Your task to perform on an android device: Open internet settings Image 0: 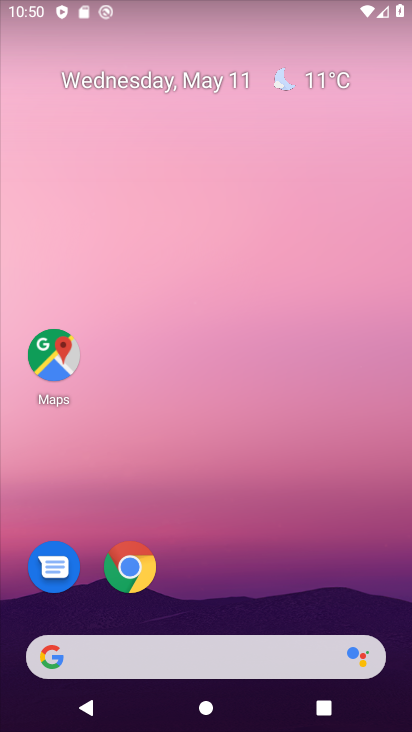
Step 0: drag from (288, 501) to (205, 0)
Your task to perform on an android device: Open internet settings Image 1: 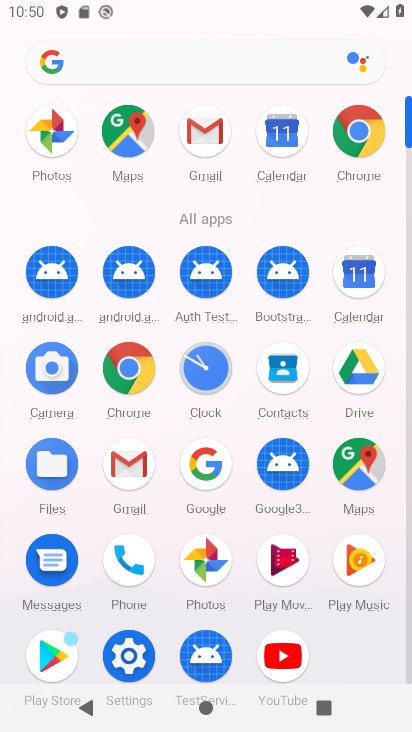
Step 1: click (120, 648)
Your task to perform on an android device: Open internet settings Image 2: 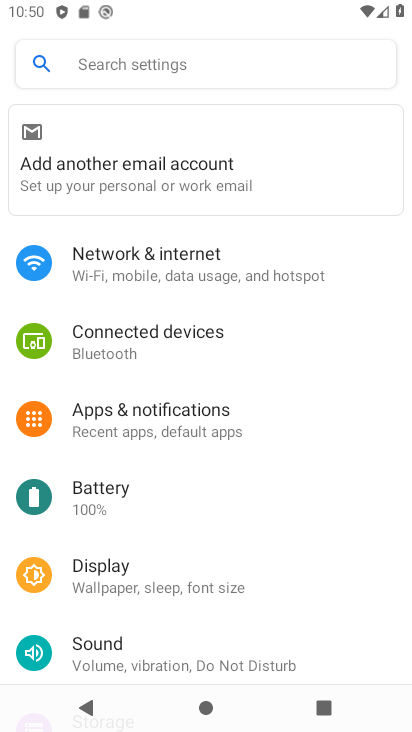
Step 2: click (169, 282)
Your task to perform on an android device: Open internet settings Image 3: 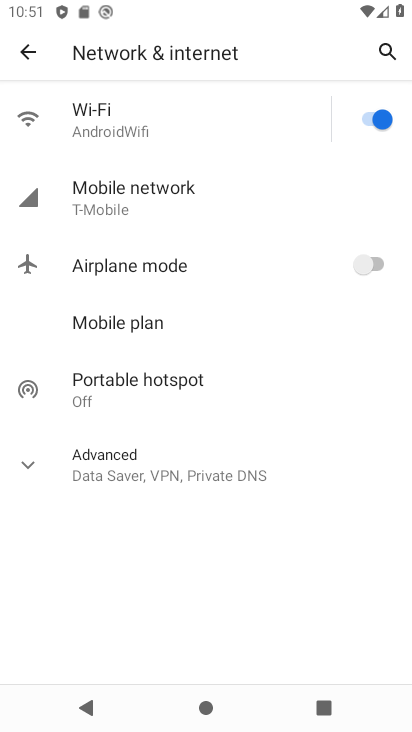
Step 3: click (143, 192)
Your task to perform on an android device: Open internet settings Image 4: 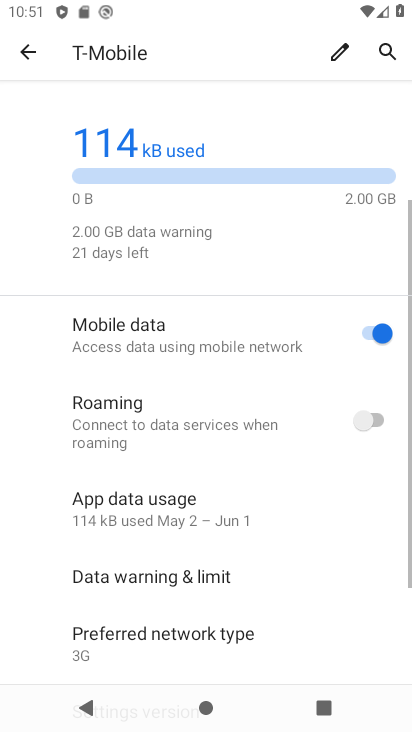
Step 4: task complete